Your task to perform on an android device: Go to Wikipedia Image 0: 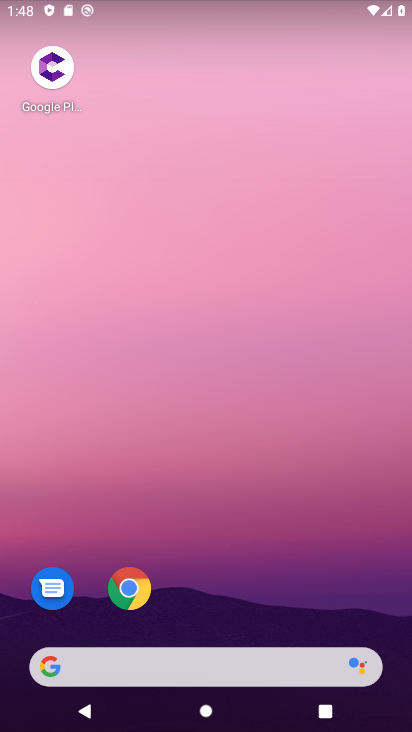
Step 0: click (131, 592)
Your task to perform on an android device: Go to Wikipedia Image 1: 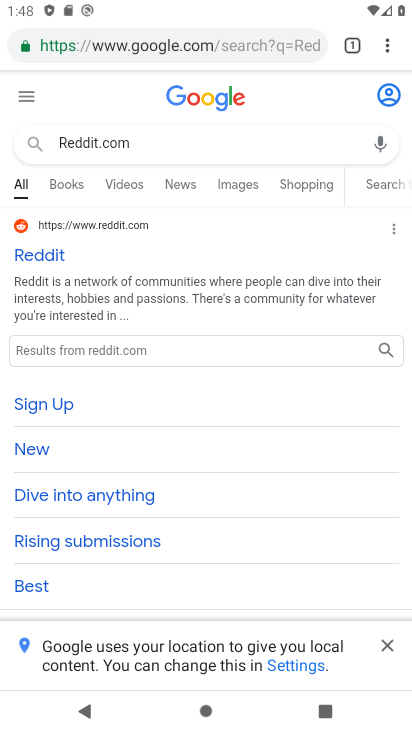
Step 1: click (352, 56)
Your task to perform on an android device: Go to Wikipedia Image 2: 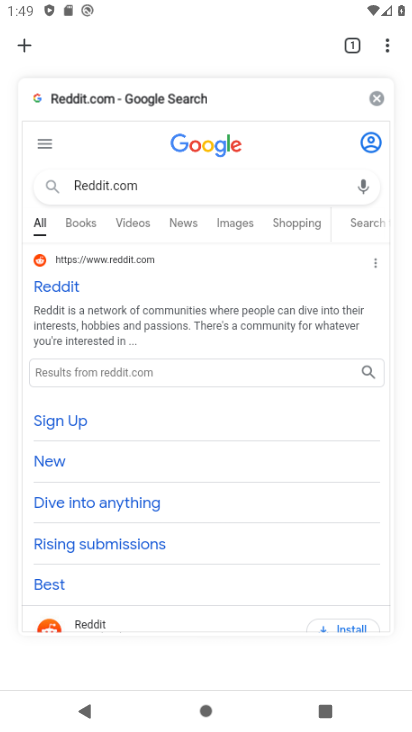
Step 2: click (29, 48)
Your task to perform on an android device: Go to Wikipedia Image 3: 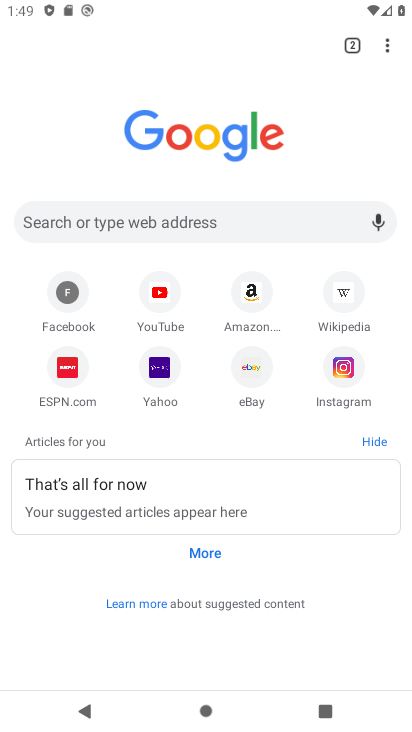
Step 3: click (344, 302)
Your task to perform on an android device: Go to Wikipedia Image 4: 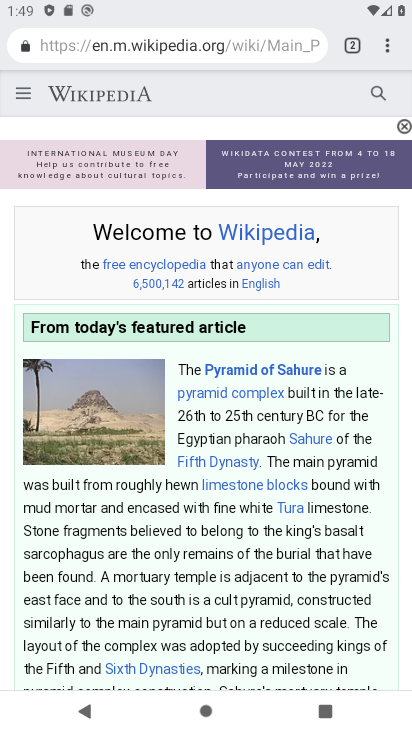
Step 4: task complete